Your task to perform on an android device: What's on my calendar tomorrow? Image 0: 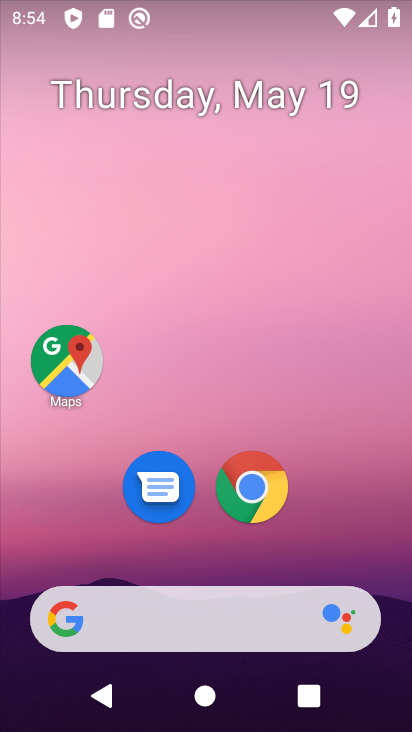
Step 0: drag from (180, 574) to (256, 55)
Your task to perform on an android device: What's on my calendar tomorrow? Image 1: 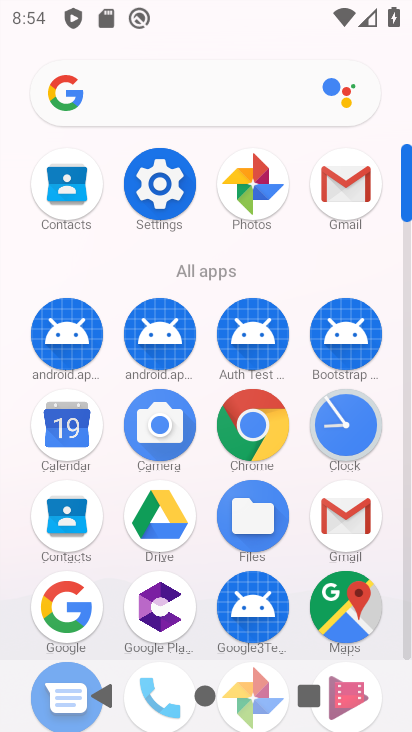
Step 1: click (66, 413)
Your task to perform on an android device: What's on my calendar tomorrow? Image 2: 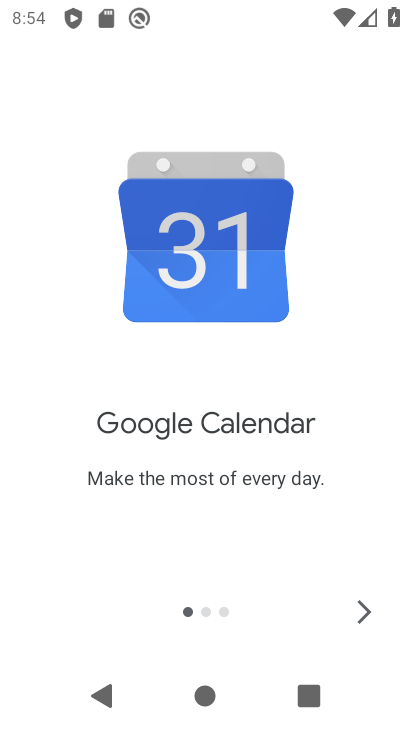
Step 2: click (364, 600)
Your task to perform on an android device: What's on my calendar tomorrow? Image 3: 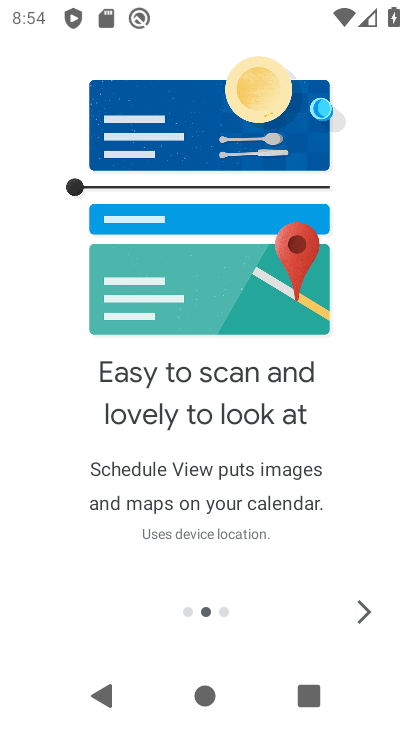
Step 3: click (364, 596)
Your task to perform on an android device: What's on my calendar tomorrow? Image 4: 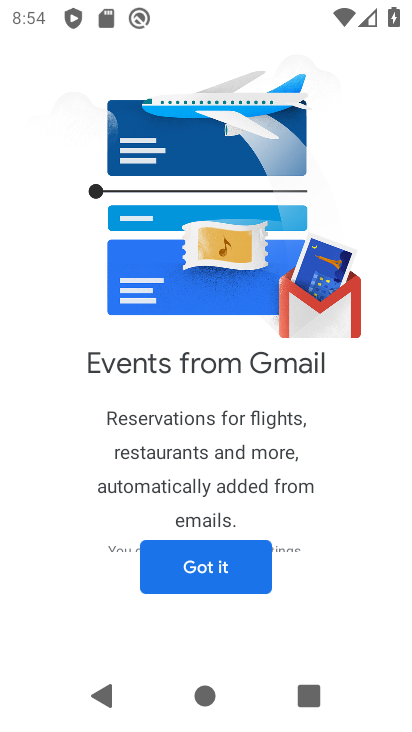
Step 4: click (192, 569)
Your task to perform on an android device: What's on my calendar tomorrow? Image 5: 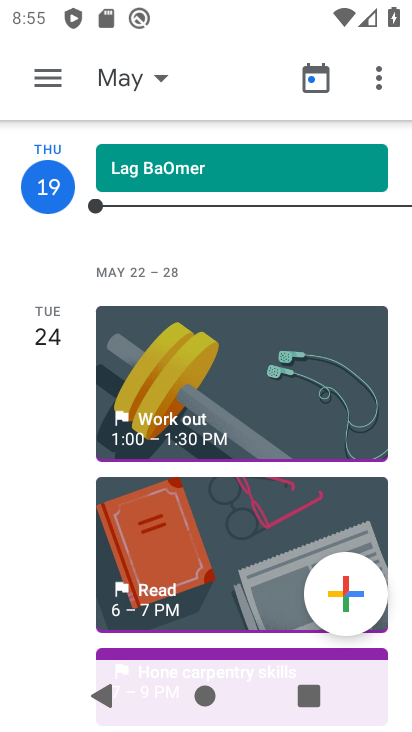
Step 5: task complete